Your task to perform on an android device: Open Google Image 0: 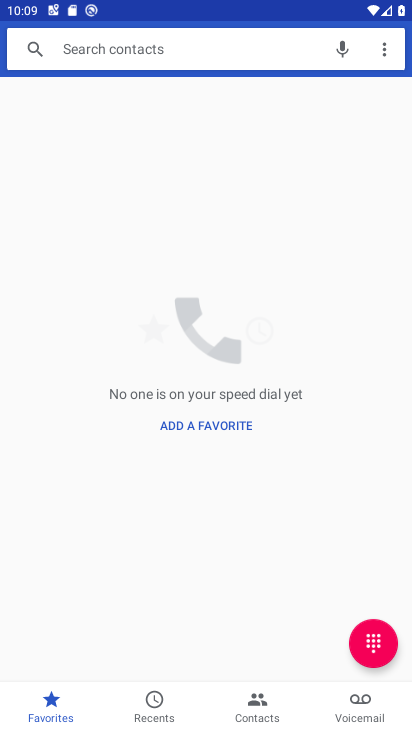
Step 0: press home button
Your task to perform on an android device: Open Google Image 1: 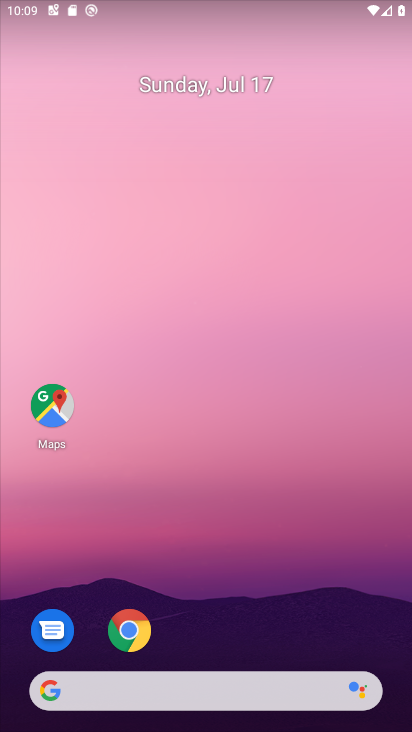
Step 1: drag from (258, 596) to (265, 86)
Your task to perform on an android device: Open Google Image 2: 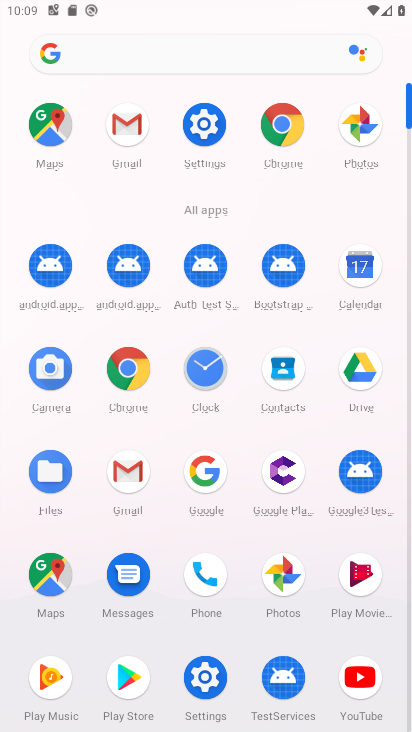
Step 2: click (205, 474)
Your task to perform on an android device: Open Google Image 3: 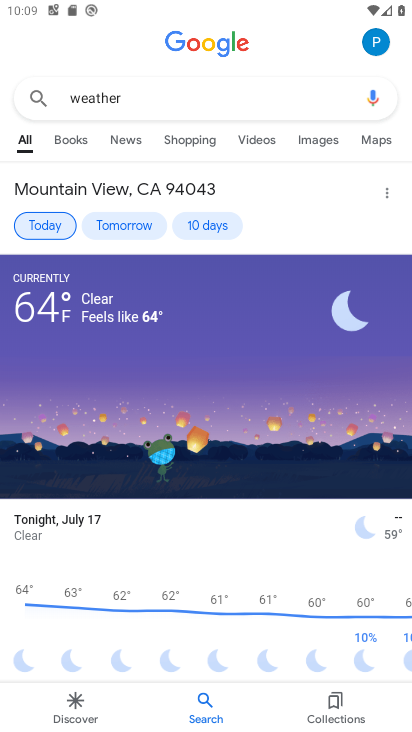
Step 3: click (214, 104)
Your task to perform on an android device: Open Google Image 4: 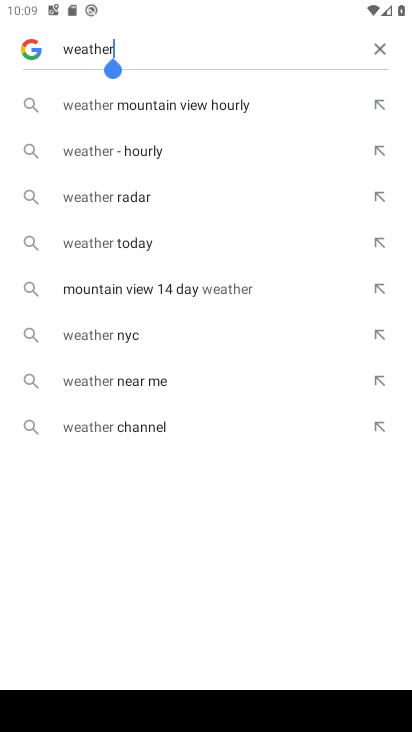
Step 4: click (382, 38)
Your task to perform on an android device: Open Google Image 5: 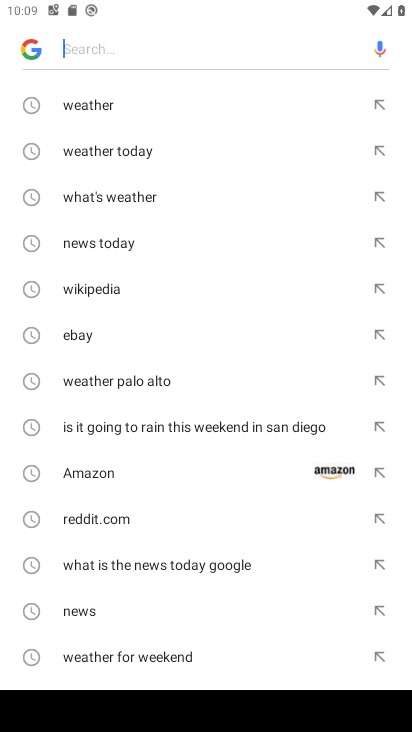
Step 5: click (32, 44)
Your task to perform on an android device: Open Google Image 6: 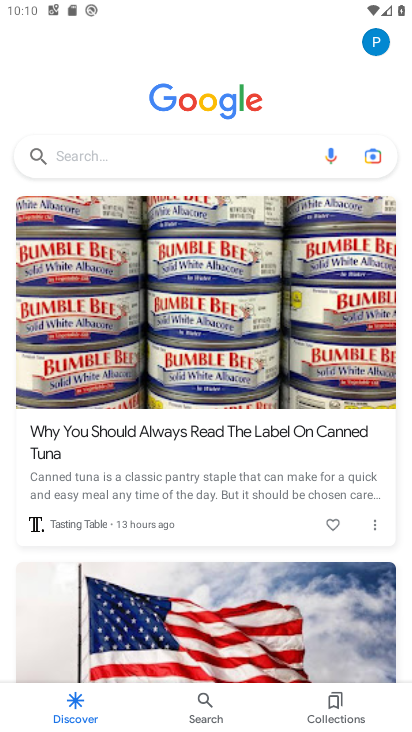
Step 6: task complete